Your task to perform on an android device: Open Google Chrome Image 0: 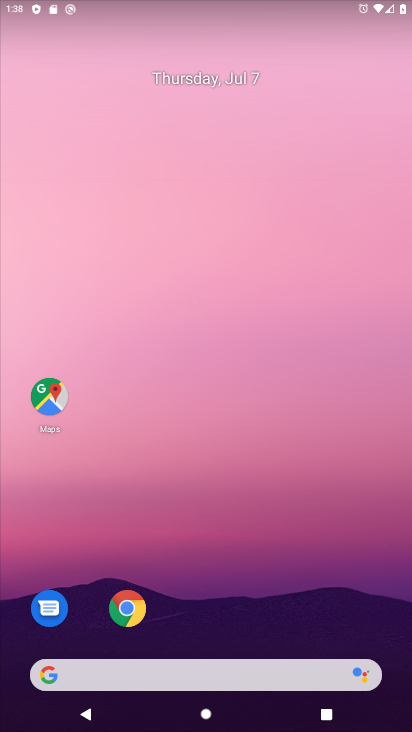
Step 0: click (131, 609)
Your task to perform on an android device: Open Google Chrome Image 1: 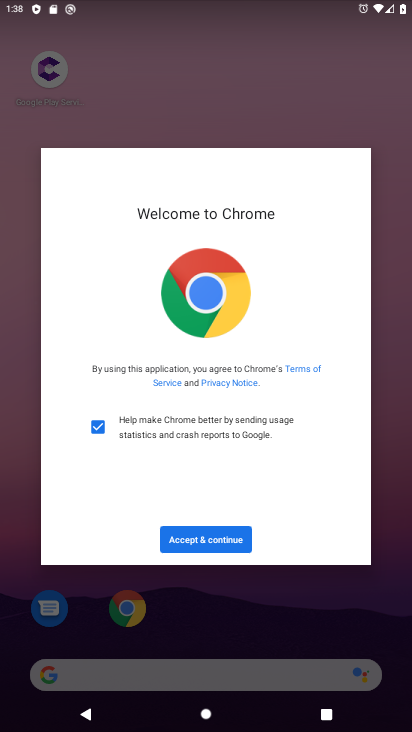
Step 1: click (221, 539)
Your task to perform on an android device: Open Google Chrome Image 2: 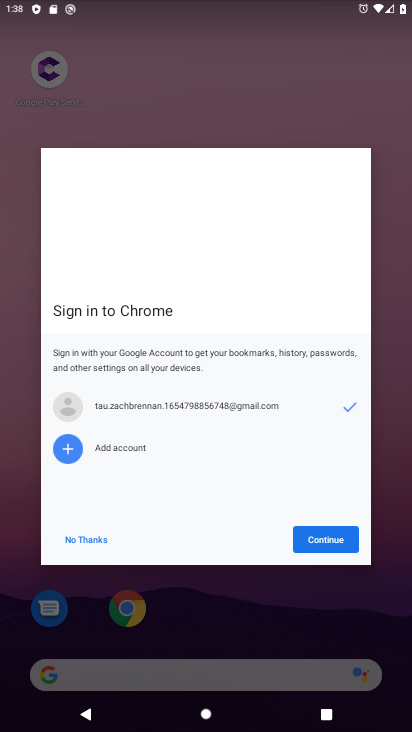
Step 2: click (319, 536)
Your task to perform on an android device: Open Google Chrome Image 3: 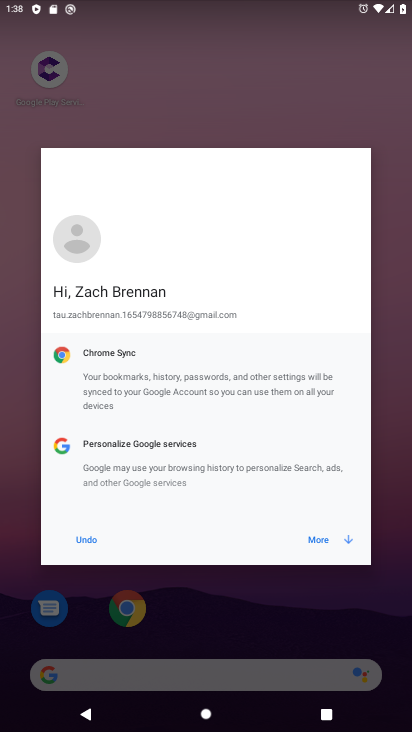
Step 3: click (319, 536)
Your task to perform on an android device: Open Google Chrome Image 4: 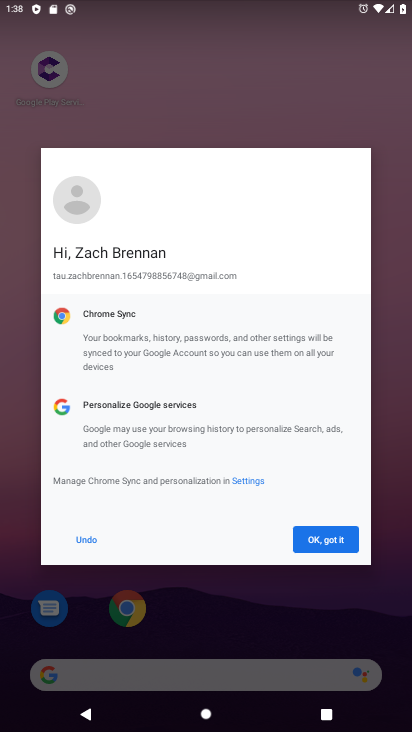
Step 4: click (319, 536)
Your task to perform on an android device: Open Google Chrome Image 5: 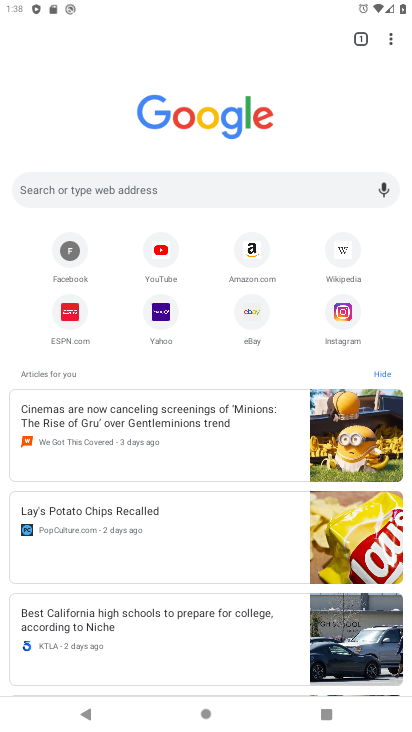
Step 5: task complete